Your task to perform on an android device: Open maps Image 0: 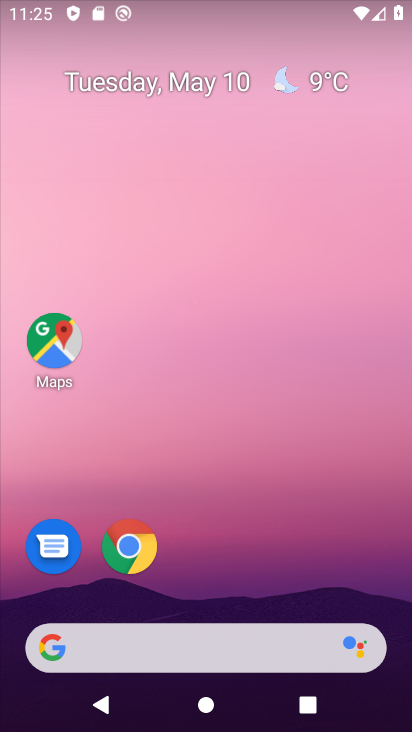
Step 0: click (72, 328)
Your task to perform on an android device: Open maps Image 1: 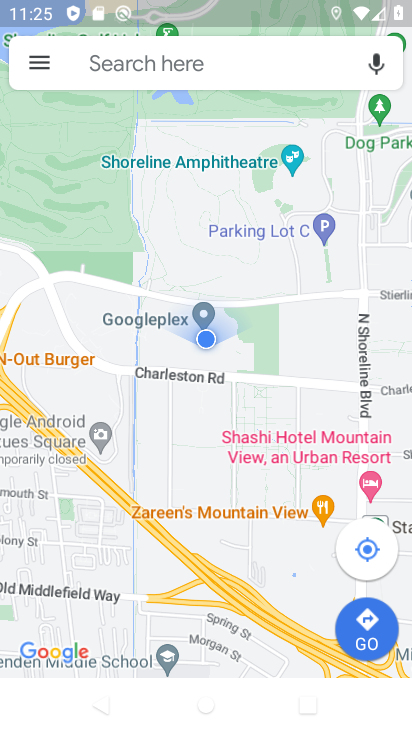
Step 1: task complete